Your task to perform on an android device: Open Google Chrome Image 0: 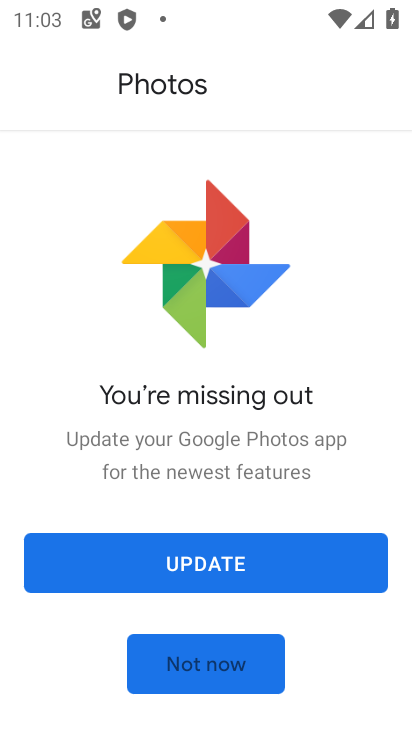
Step 0: press home button
Your task to perform on an android device: Open Google Chrome Image 1: 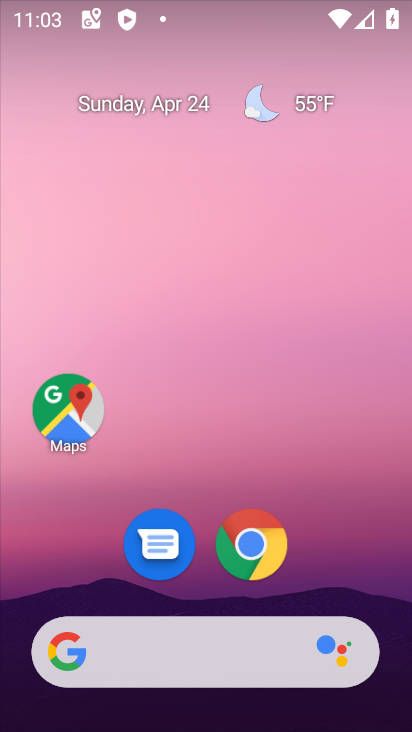
Step 1: click (274, 549)
Your task to perform on an android device: Open Google Chrome Image 2: 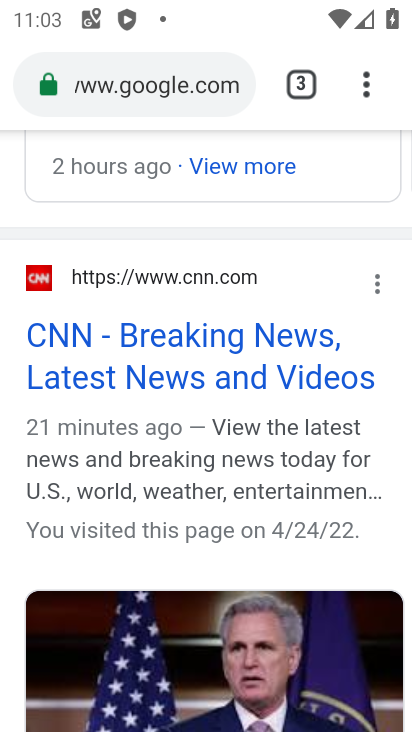
Step 2: task complete